Your task to perform on an android device: all mails in gmail Image 0: 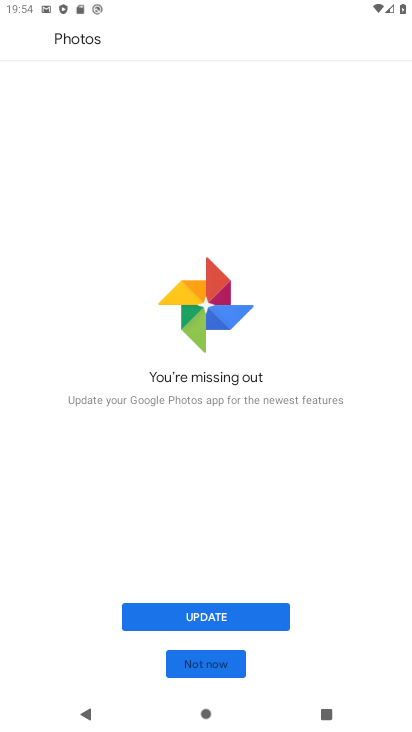
Step 0: press home button
Your task to perform on an android device: all mails in gmail Image 1: 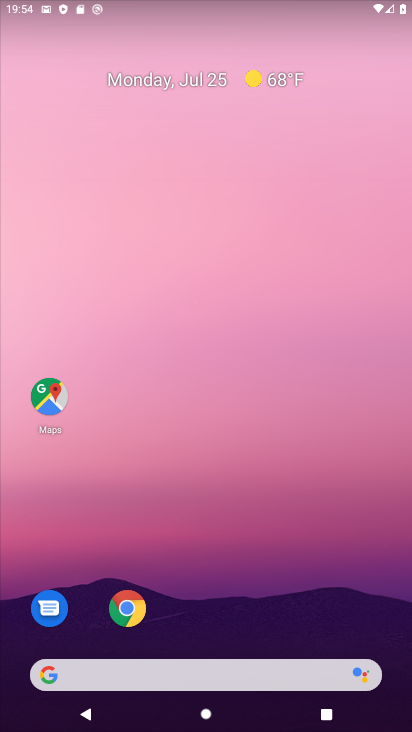
Step 1: drag from (243, 637) to (196, 3)
Your task to perform on an android device: all mails in gmail Image 2: 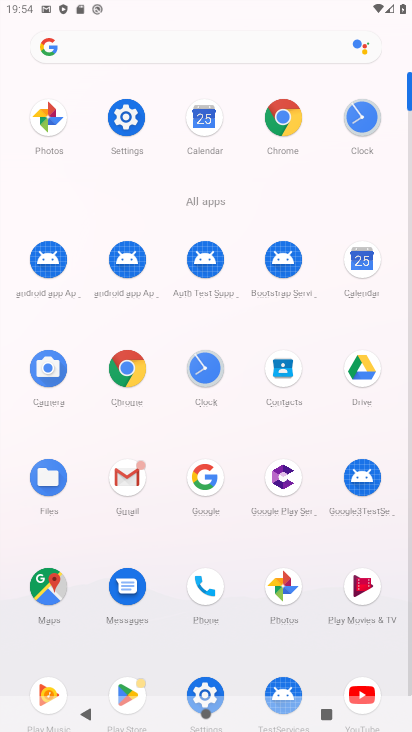
Step 2: click (130, 480)
Your task to perform on an android device: all mails in gmail Image 3: 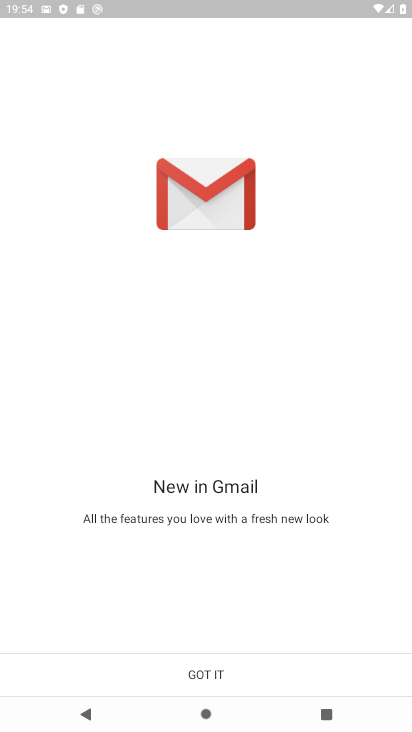
Step 3: click (195, 670)
Your task to perform on an android device: all mails in gmail Image 4: 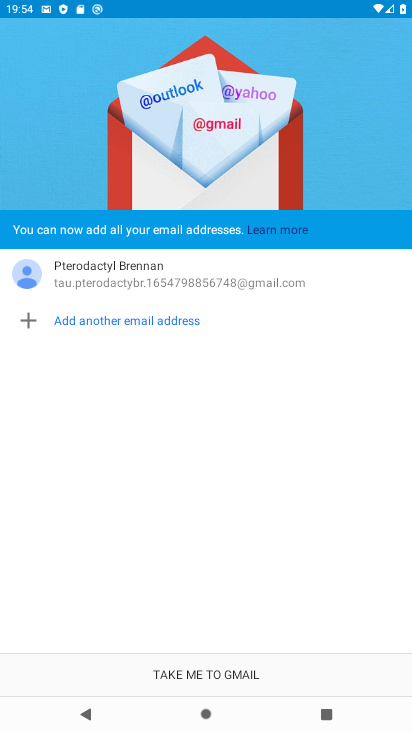
Step 4: click (195, 670)
Your task to perform on an android device: all mails in gmail Image 5: 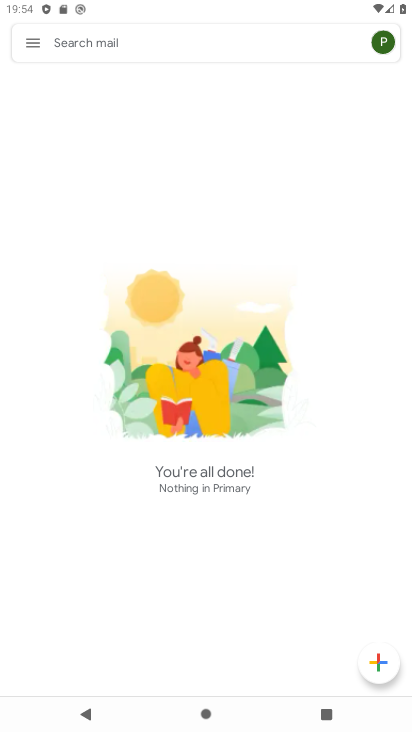
Step 5: click (28, 42)
Your task to perform on an android device: all mails in gmail Image 6: 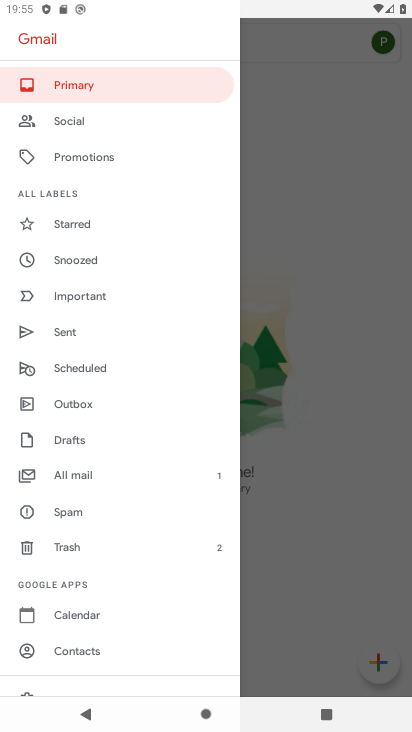
Step 6: click (75, 476)
Your task to perform on an android device: all mails in gmail Image 7: 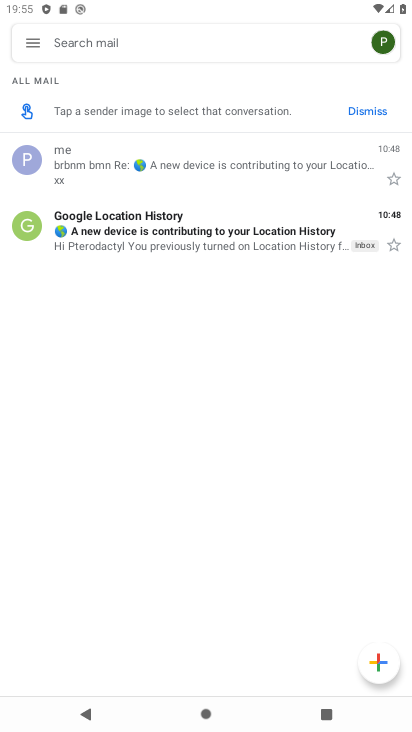
Step 7: task complete